Your task to perform on an android device: clear history in the chrome app Image 0: 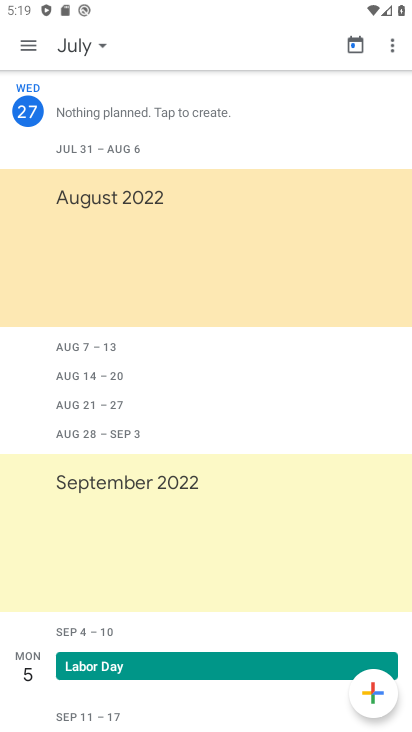
Step 0: press home button
Your task to perform on an android device: clear history in the chrome app Image 1: 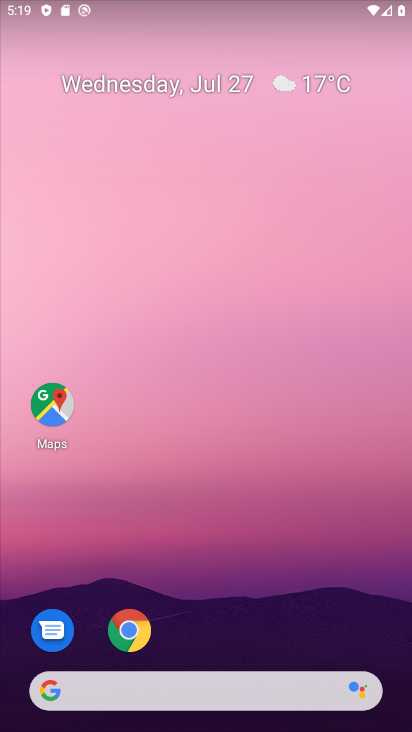
Step 1: click (123, 621)
Your task to perform on an android device: clear history in the chrome app Image 2: 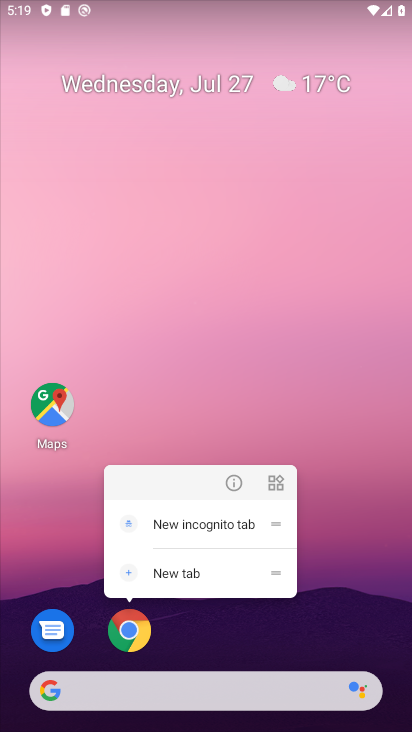
Step 2: click (125, 626)
Your task to perform on an android device: clear history in the chrome app Image 3: 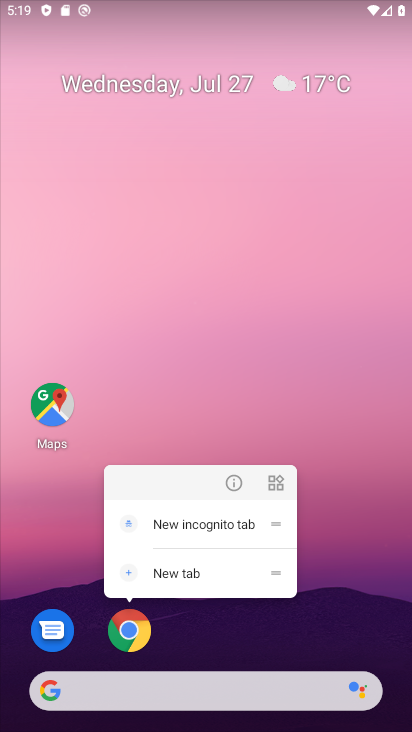
Step 3: click (233, 648)
Your task to perform on an android device: clear history in the chrome app Image 4: 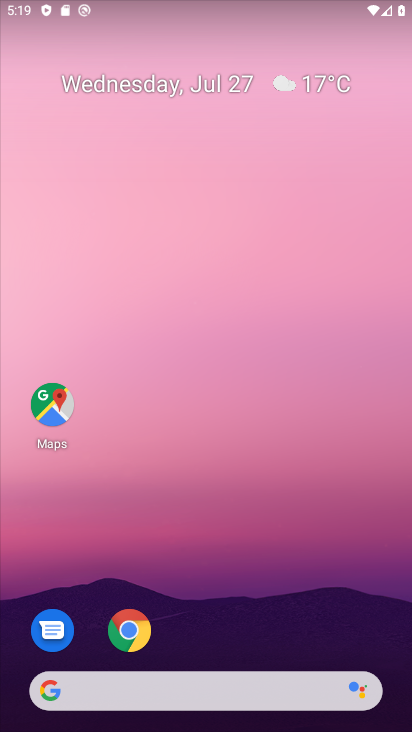
Step 4: click (125, 625)
Your task to perform on an android device: clear history in the chrome app Image 5: 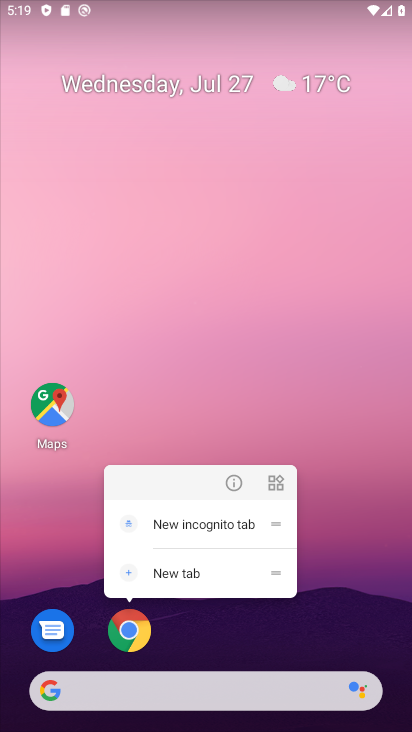
Step 5: click (125, 623)
Your task to perform on an android device: clear history in the chrome app Image 6: 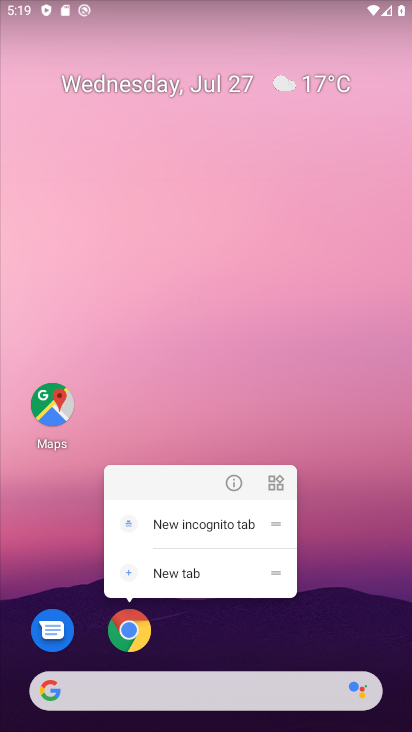
Step 6: click (197, 649)
Your task to perform on an android device: clear history in the chrome app Image 7: 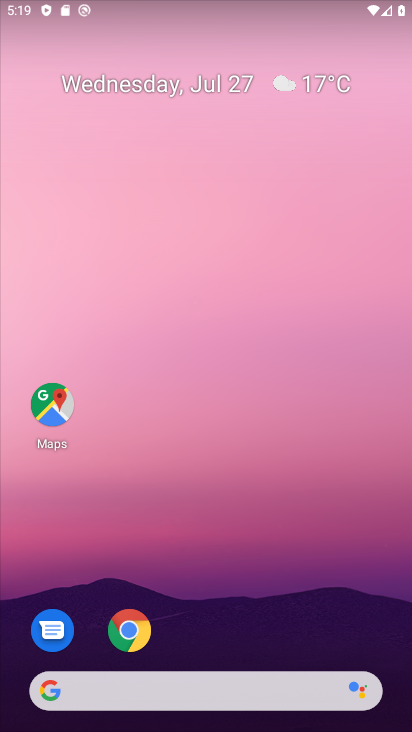
Step 7: click (302, 638)
Your task to perform on an android device: clear history in the chrome app Image 8: 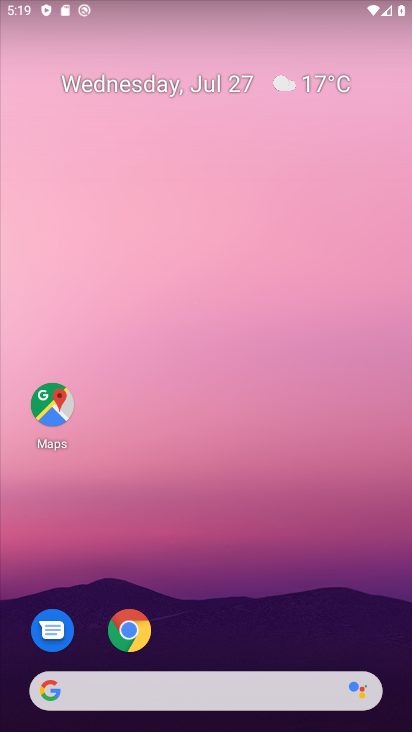
Step 8: drag from (228, 651) to (227, 98)
Your task to perform on an android device: clear history in the chrome app Image 9: 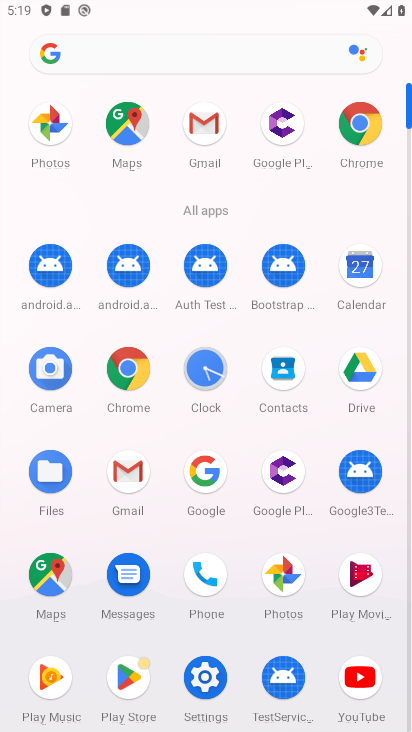
Step 9: click (358, 117)
Your task to perform on an android device: clear history in the chrome app Image 10: 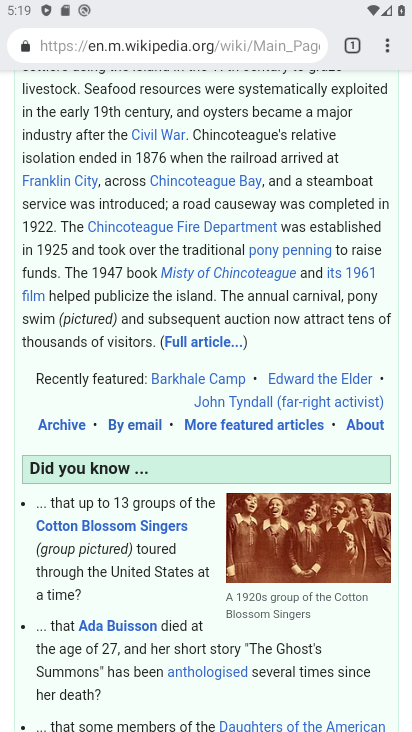
Step 10: click (385, 44)
Your task to perform on an android device: clear history in the chrome app Image 11: 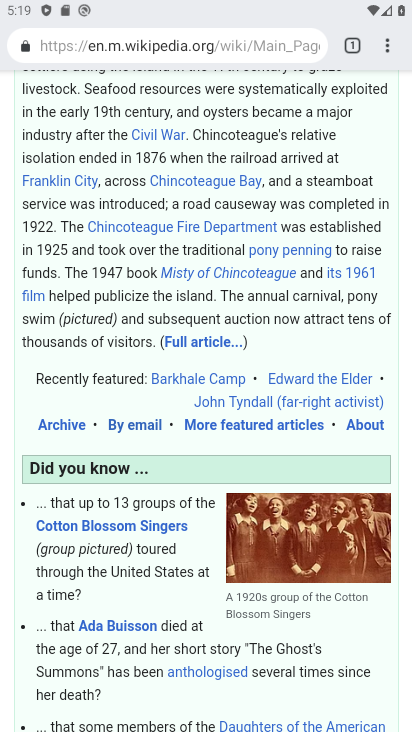
Step 11: click (386, 45)
Your task to perform on an android device: clear history in the chrome app Image 12: 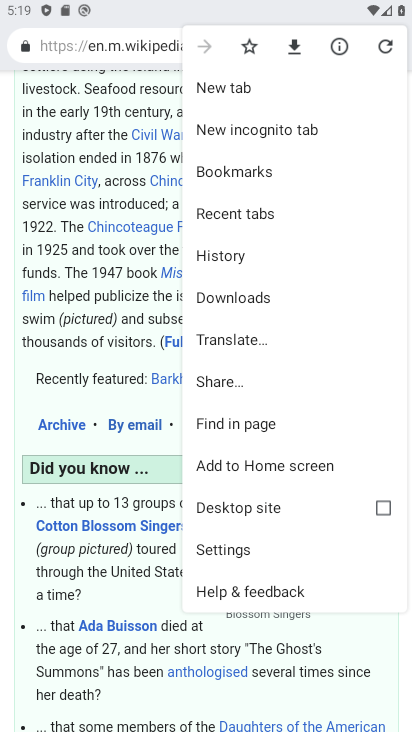
Step 12: click (248, 254)
Your task to perform on an android device: clear history in the chrome app Image 13: 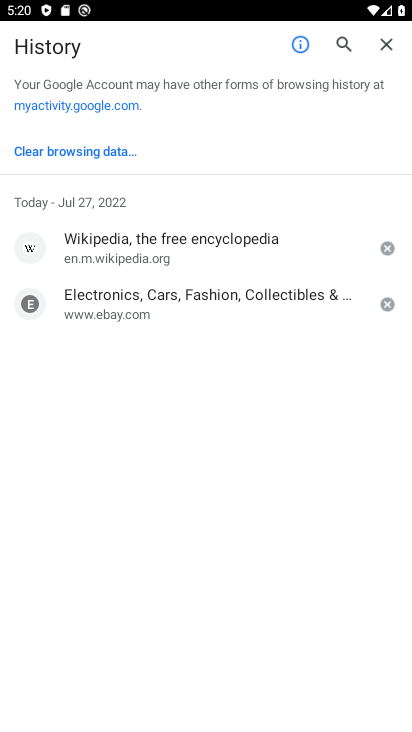
Step 13: click (66, 151)
Your task to perform on an android device: clear history in the chrome app Image 14: 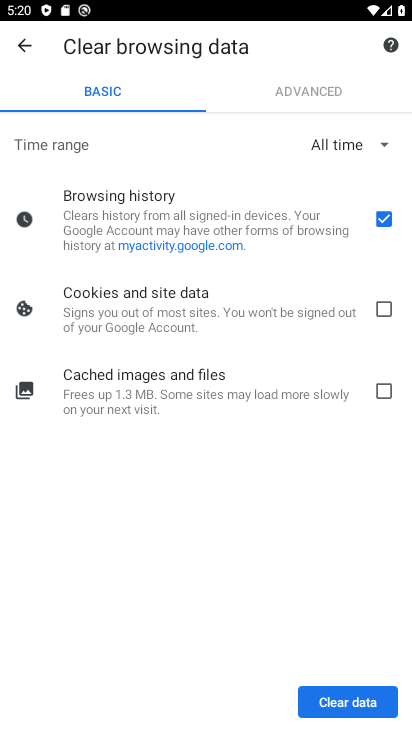
Step 14: click (388, 308)
Your task to perform on an android device: clear history in the chrome app Image 15: 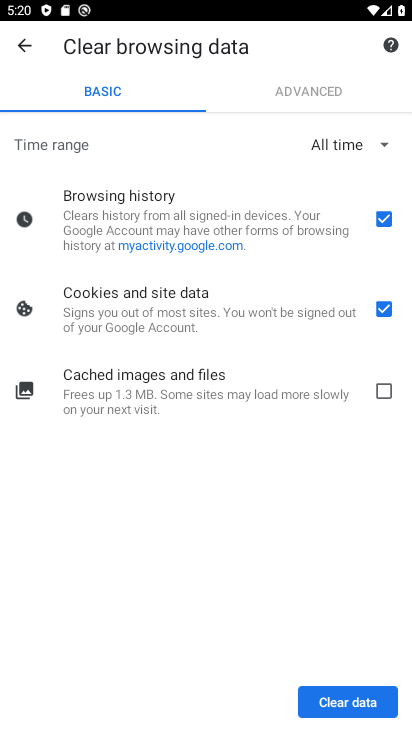
Step 15: click (380, 387)
Your task to perform on an android device: clear history in the chrome app Image 16: 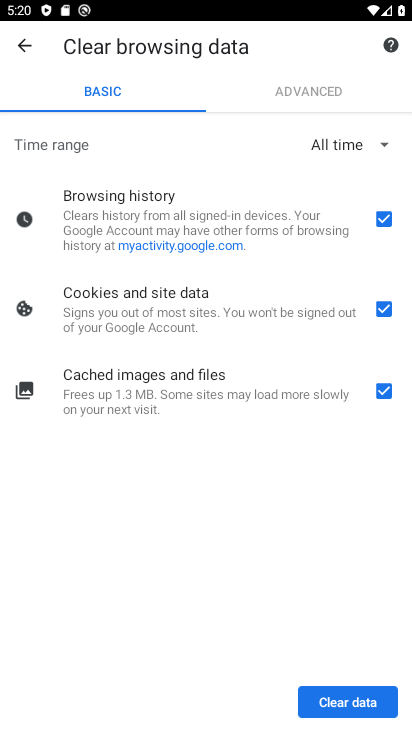
Step 16: click (338, 693)
Your task to perform on an android device: clear history in the chrome app Image 17: 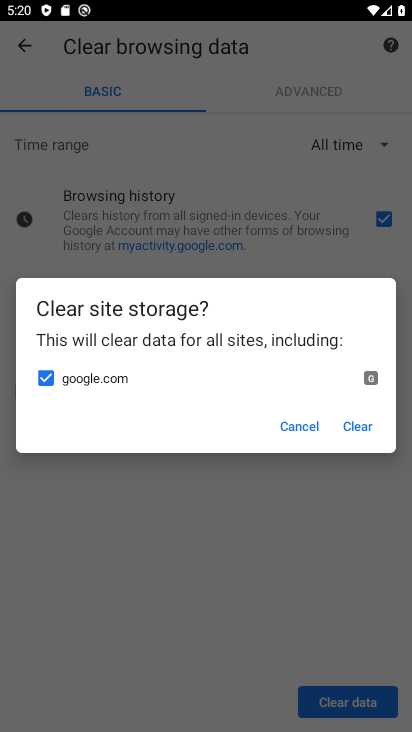
Step 17: click (355, 424)
Your task to perform on an android device: clear history in the chrome app Image 18: 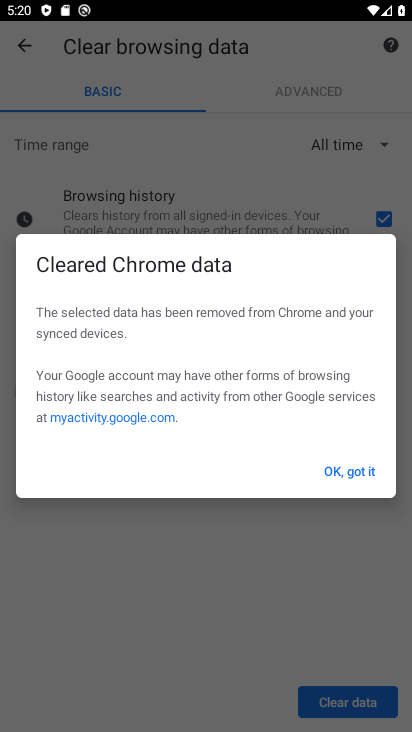
Step 18: click (353, 474)
Your task to perform on an android device: clear history in the chrome app Image 19: 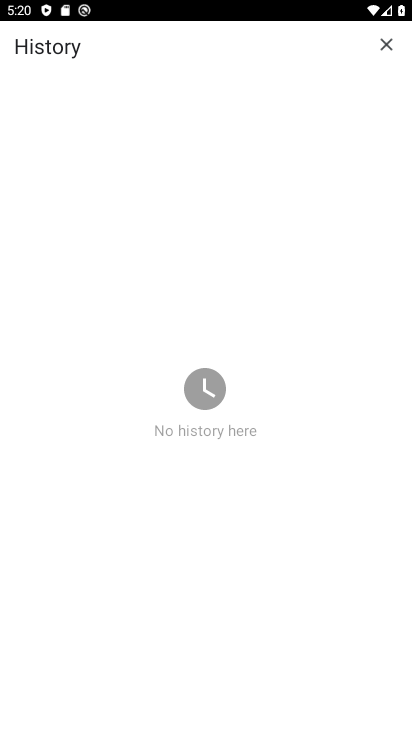
Step 19: task complete